Your task to perform on an android device: change your default location settings in chrome Image 0: 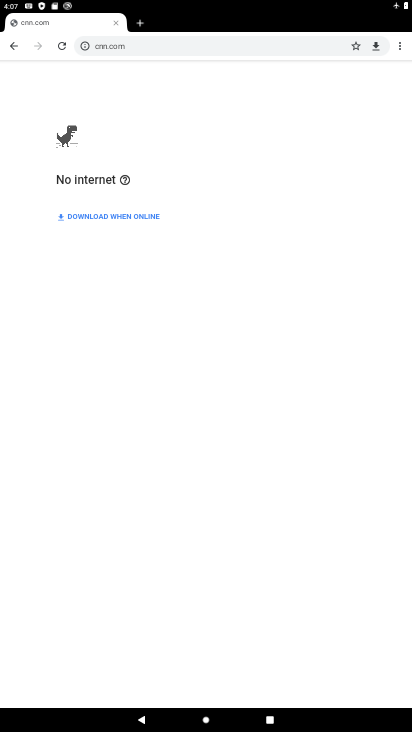
Step 0: press home button
Your task to perform on an android device: change your default location settings in chrome Image 1: 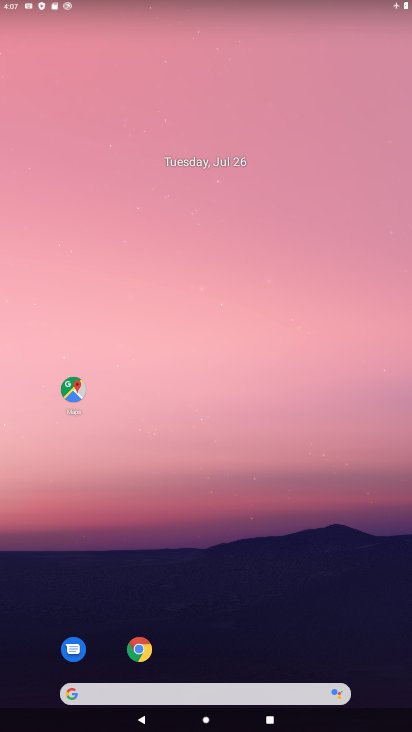
Step 1: click (142, 646)
Your task to perform on an android device: change your default location settings in chrome Image 2: 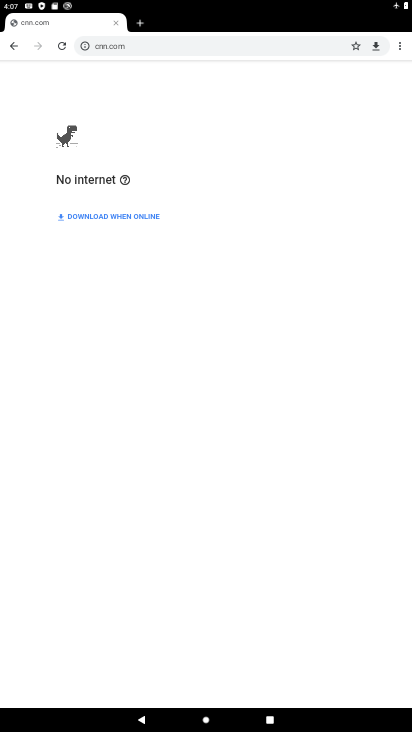
Step 2: click (400, 44)
Your task to perform on an android device: change your default location settings in chrome Image 3: 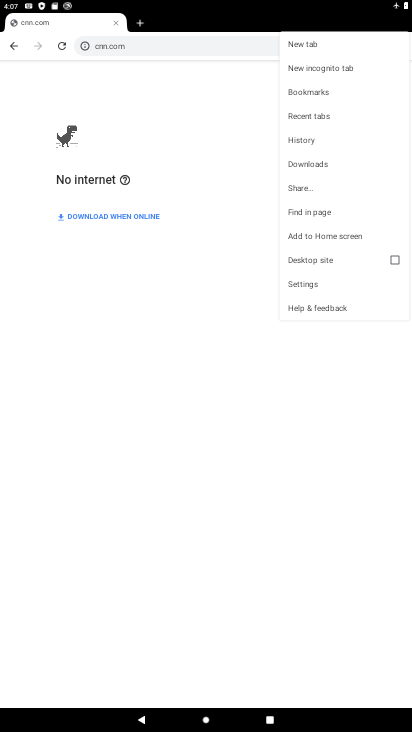
Step 3: click (322, 285)
Your task to perform on an android device: change your default location settings in chrome Image 4: 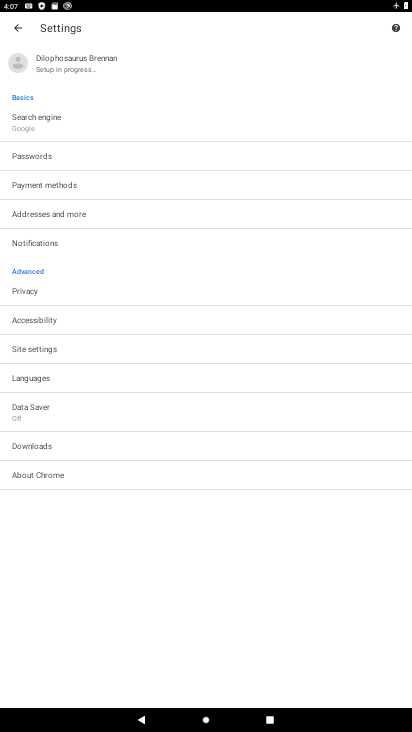
Step 4: click (77, 353)
Your task to perform on an android device: change your default location settings in chrome Image 5: 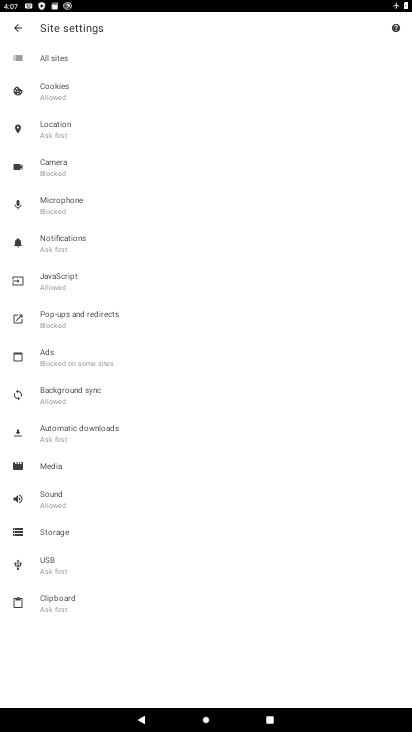
Step 5: click (69, 135)
Your task to perform on an android device: change your default location settings in chrome Image 6: 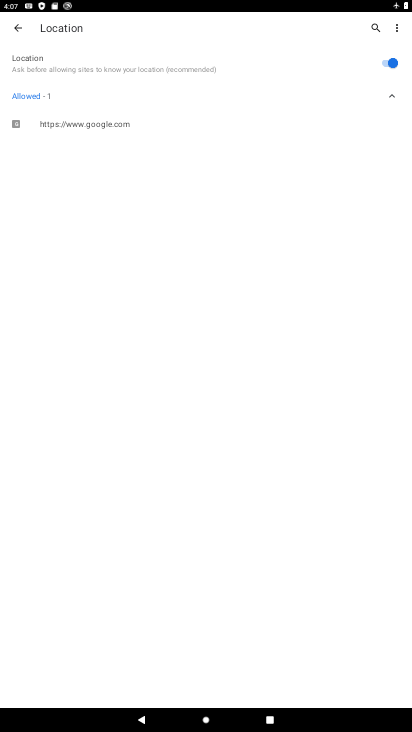
Step 6: click (391, 64)
Your task to perform on an android device: change your default location settings in chrome Image 7: 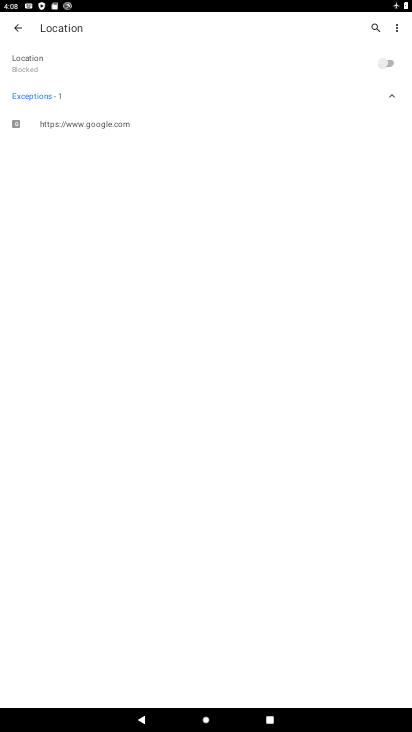
Step 7: task complete